Your task to perform on an android device: Search for vegetarian restaurants on Maps Image 0: 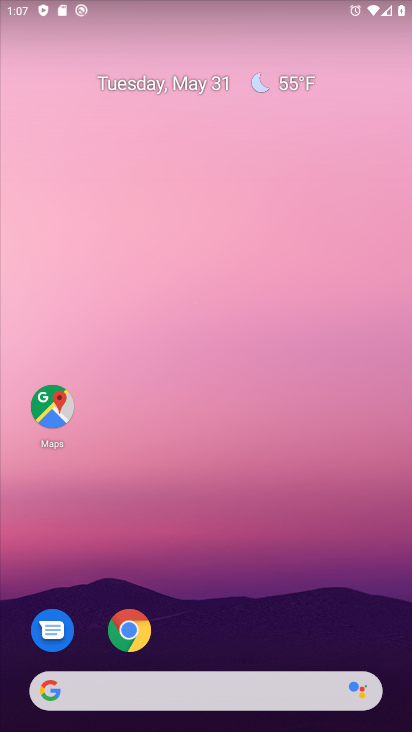
Step 0: click (52, 398)
Your task to perform on an android device: Search for vegetarian restaurants on Maps Image 1: 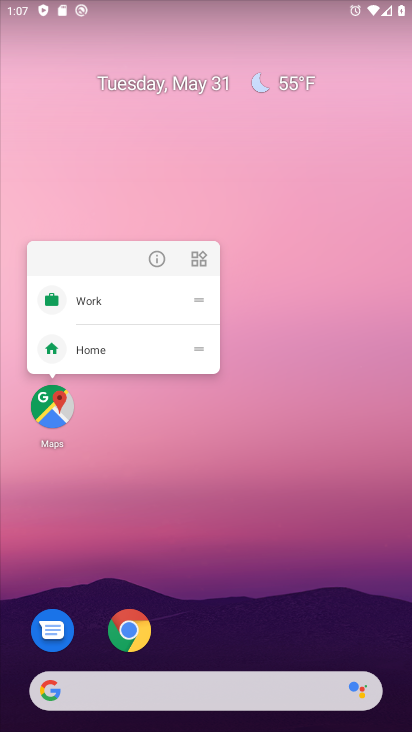
Step 1: click (56, 413)
Your task to perform on an android device: Search for vegetarian restaurants on Maps Image 2: 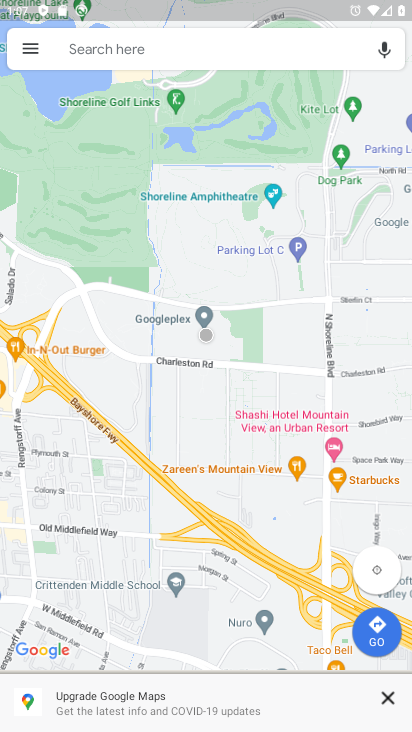
Step 2: click (164, 54)
Your task to perform on an android device: Search for vegetarian restaurants on Maps Image 3: 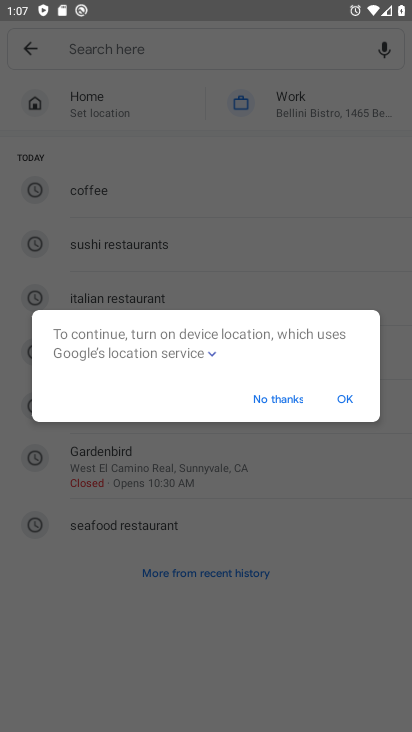
Step 3: click (345, 390)
Your task to perform on an android device: Search for vegetarian restaurants on Maps Image 4: 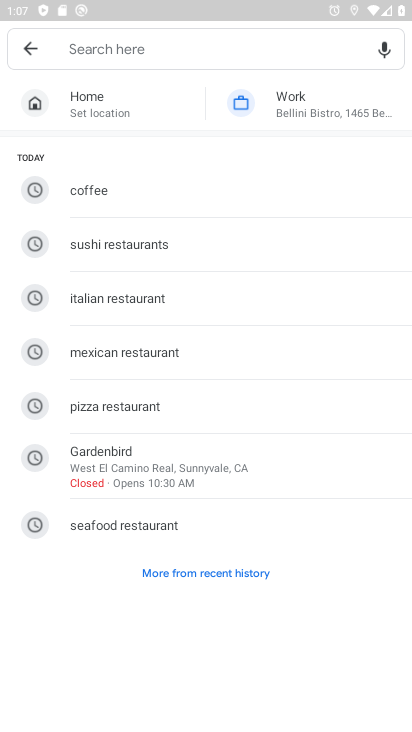
Step 4: click (192, 572)
Your task to perform on an android device: Search for vegetarian restaurants on Maps Image 5: 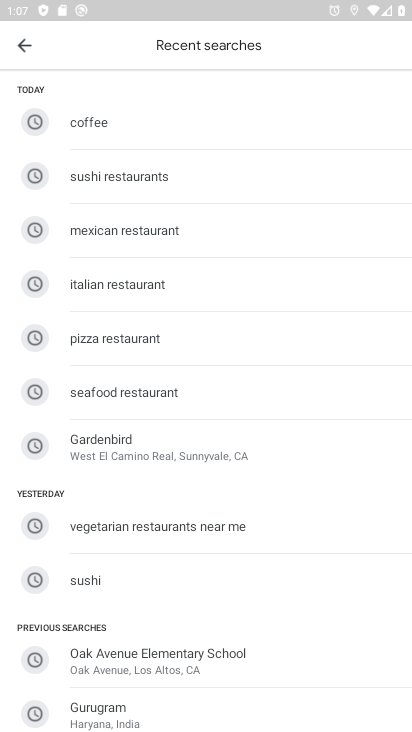
Step 5: click (154, 528)
Your task to perform on an android device: Search for vegetarian restaurants on Maps Image 6: 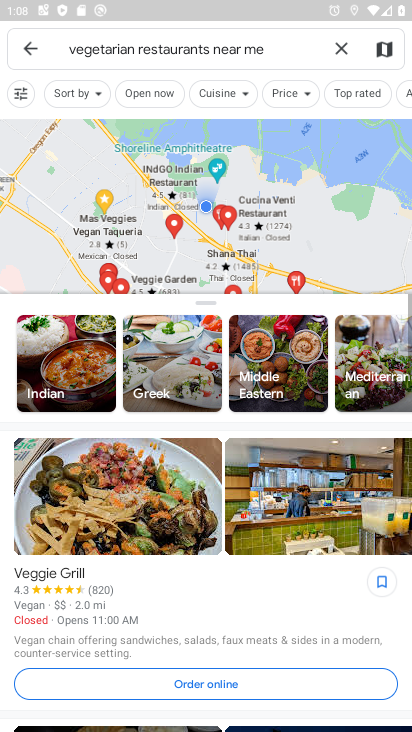
Step 6: task complete